Your task to perform on an android device: toggle wifi Image 0: 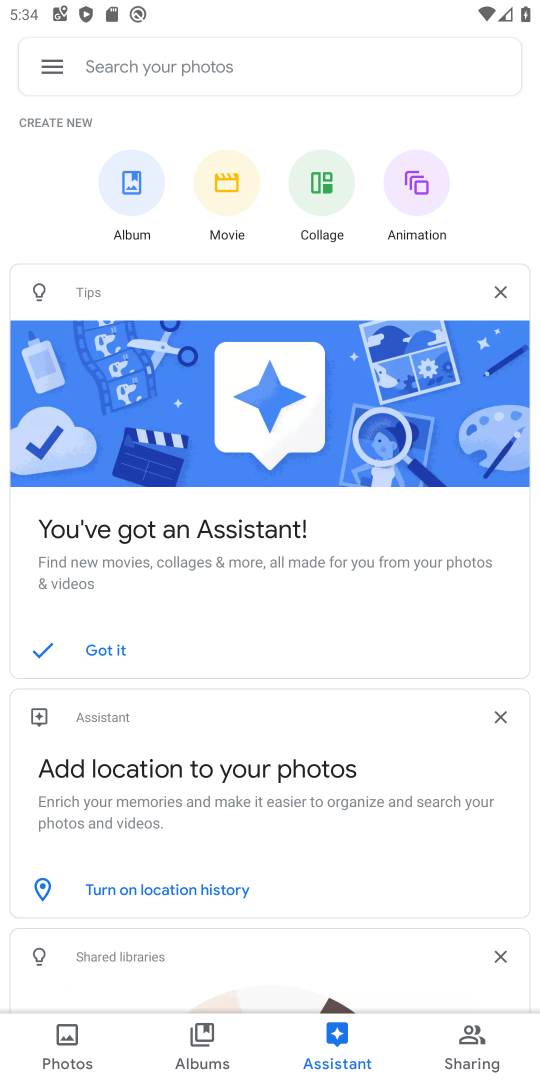
Step 0: press home button
Your task to perform on an android device: toggle wifi Image 1: 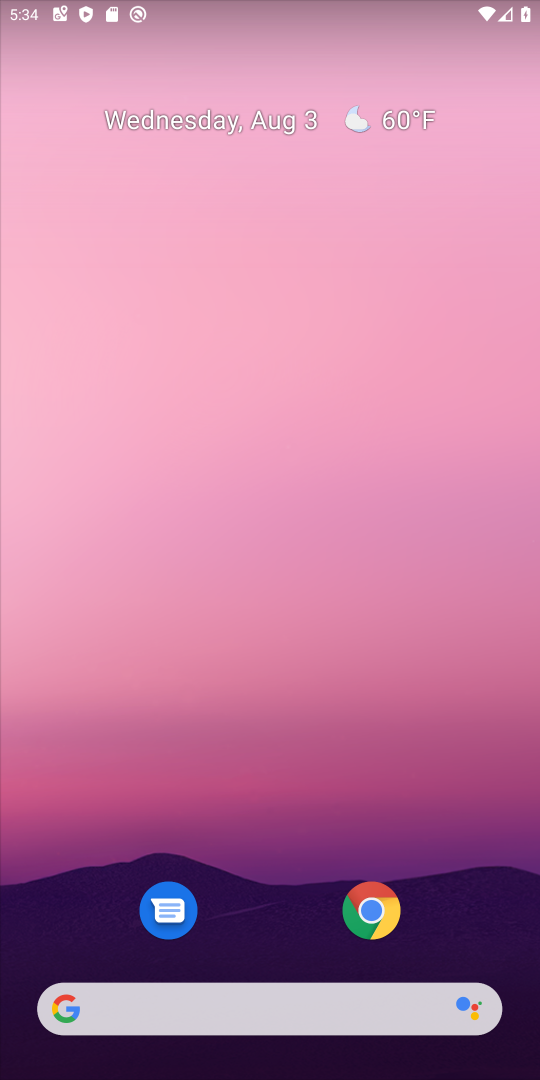
Step 1: click (375, 907)
Your task to perform on an android device: toggle wifi Image 2: 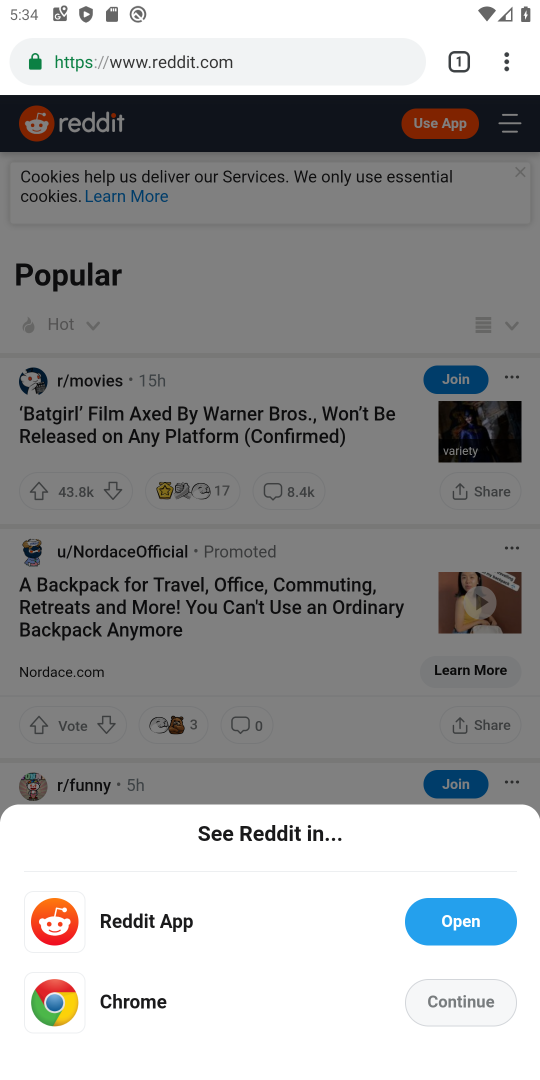
Step 2: click (214, 59)
Your task to perform on an android device: toggle wifi Image 3: 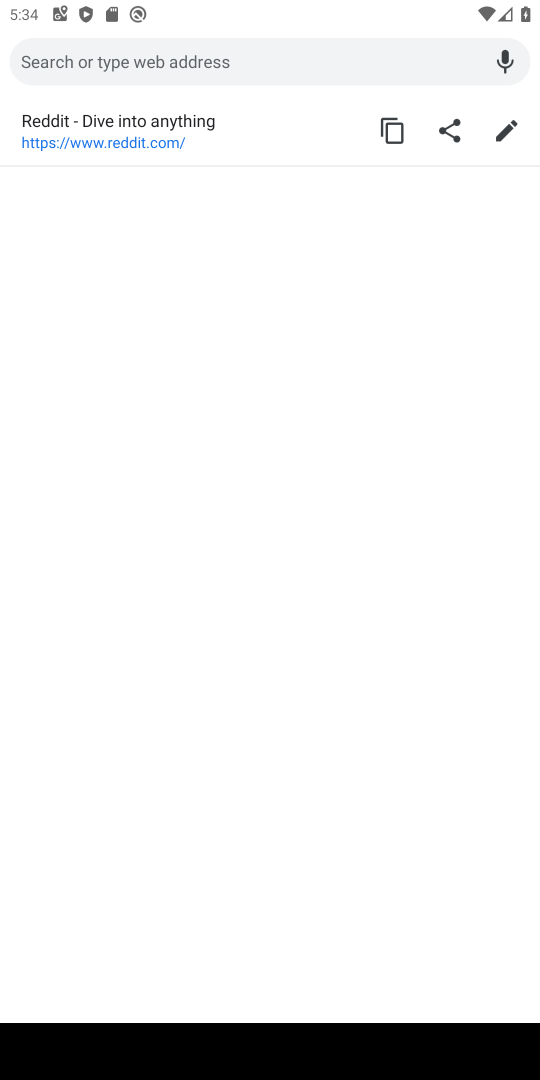
Step 3: drag from (218, 10) to (301, 907)
Your task to perform on an android device: toggle wifi Image 4: 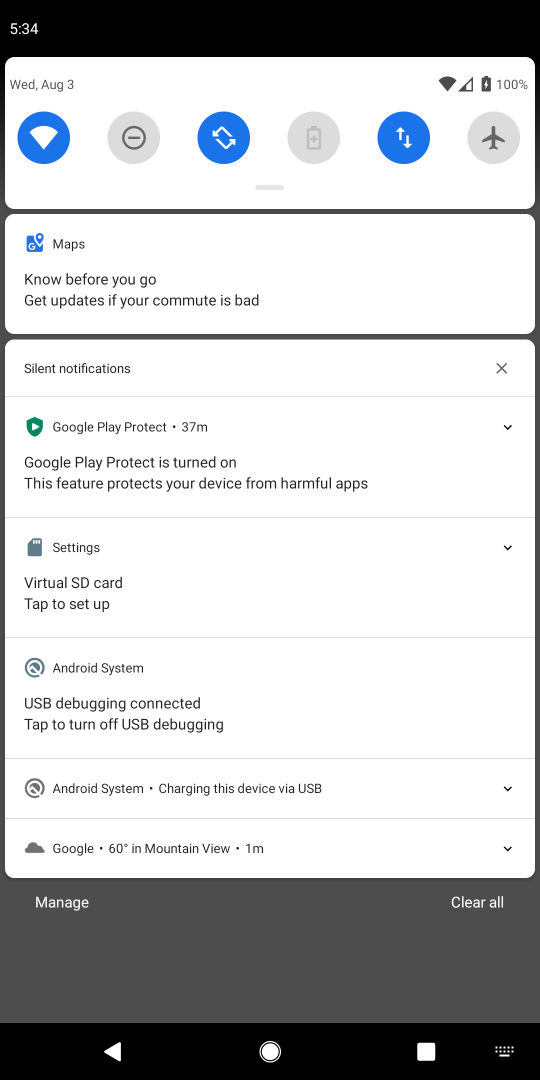
Step 4: click (34, 129)
Your task to perform on an android device: toggle wifi Image 5: 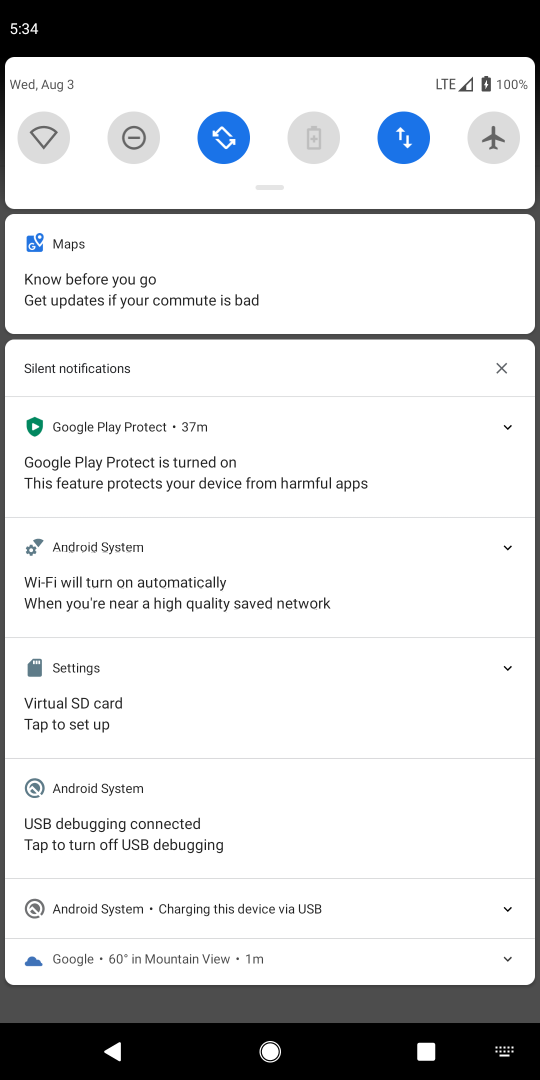
Step 5: task complete